Your task to perform on an android device: add a contact in the contacts app Image 0: 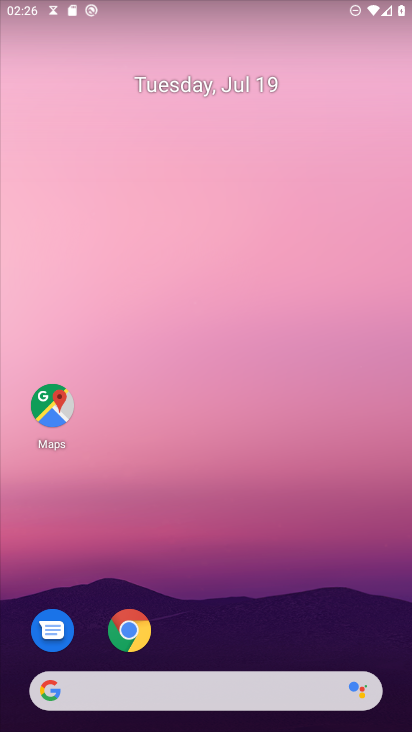
Step 0: press home button
Your task to perform on an android device: add a contact in the contacts app Image 1: 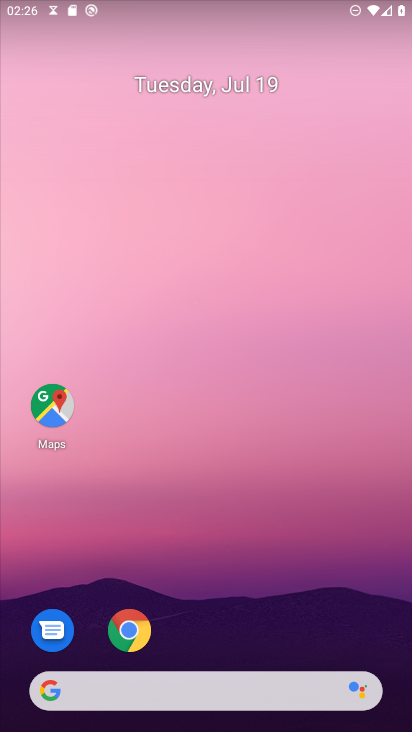
Step 1: drag from (186, 689) to (281, 108)
Your task to perform on an android device: add a contact in the contacts app Image 2: 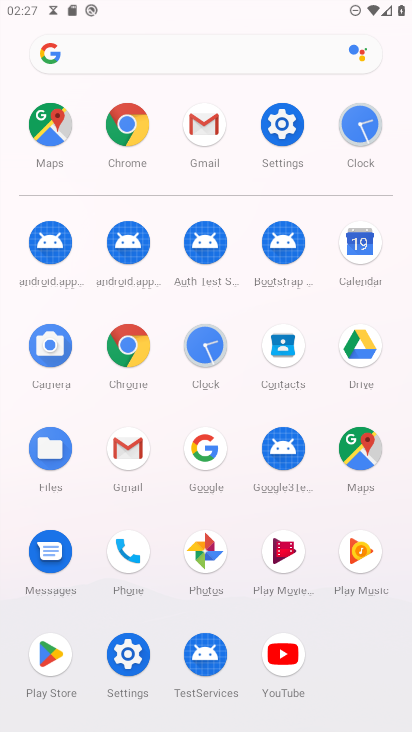
Step 2: click (287, 353)
Your task to perform on an android device: add a contact in the contacts app Image 3: 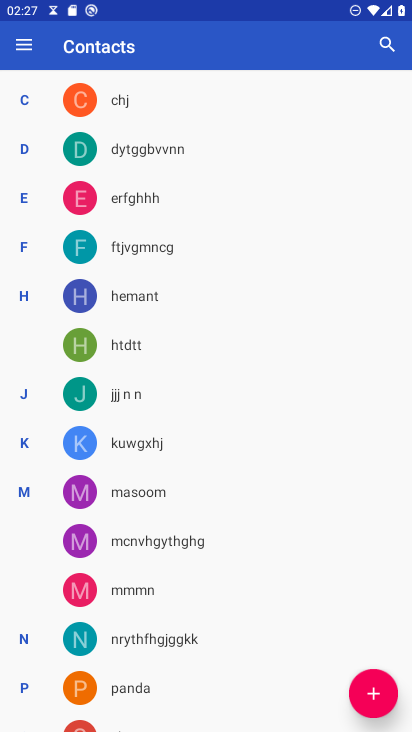
Step 3: click (362, 688)
Your task to perform on an android device: add a contact in the contacts app Image 4: 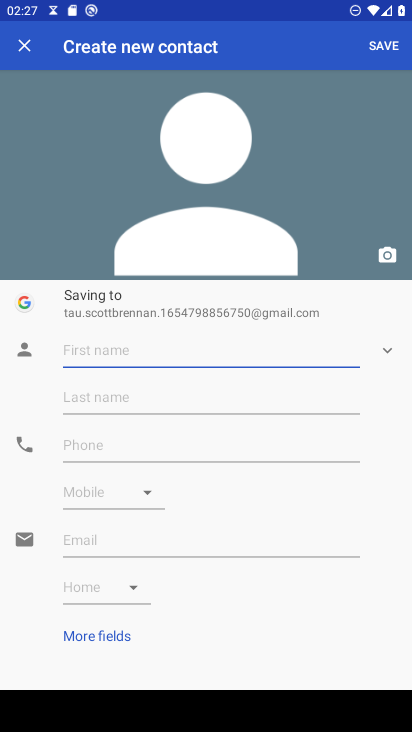
Step 4: type "uijjkkjjnnbg"
Your task to perform on an android device: add a contact in the contacts app Image 5: 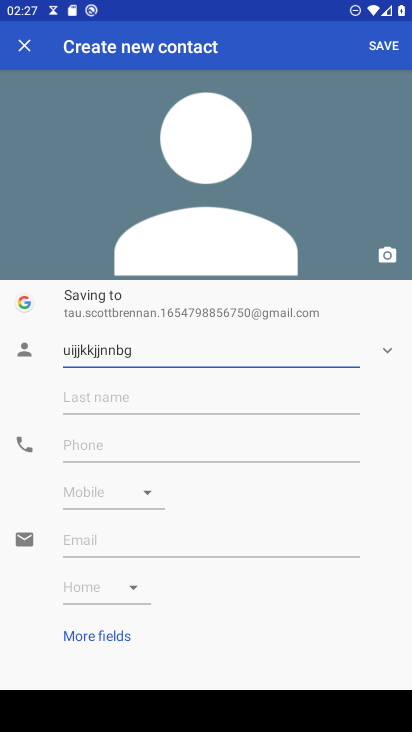
Step 5: click (90, 441)
Your task to perform on an android device: add a contact in the contacts app Image 6: 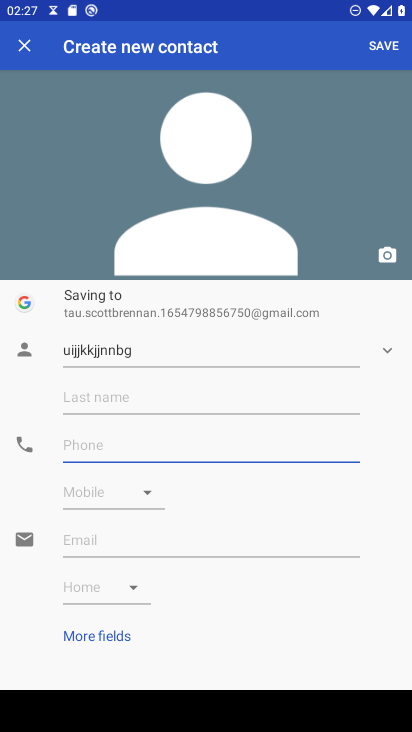
Step 6: type "09888777666"
Your task to perform on an android device: add a contact in the contacts app Image 7: 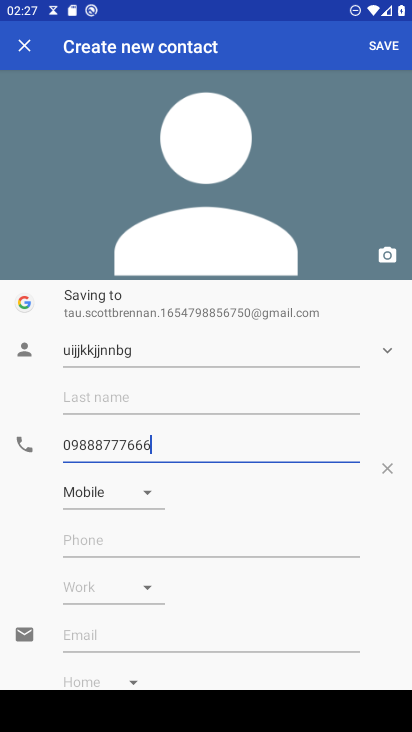
Step 7: click (370, 45)
Your task to perform on an android device: add a contact in the contacts app Image 8: 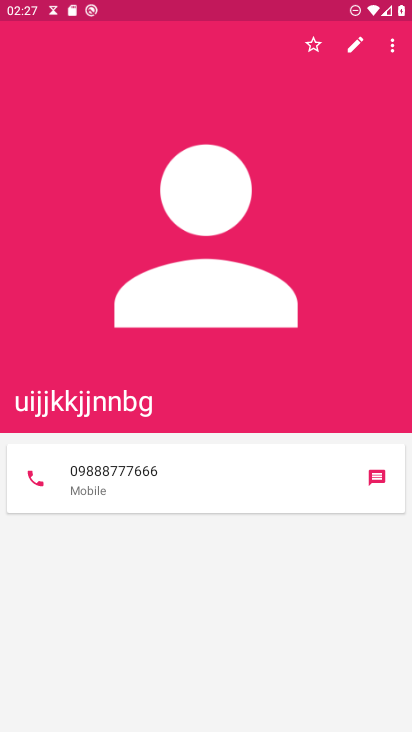
Step 8: task complete